Your task to perform on an android device: uninstall "Chime – Mobile Banking" Image 0: 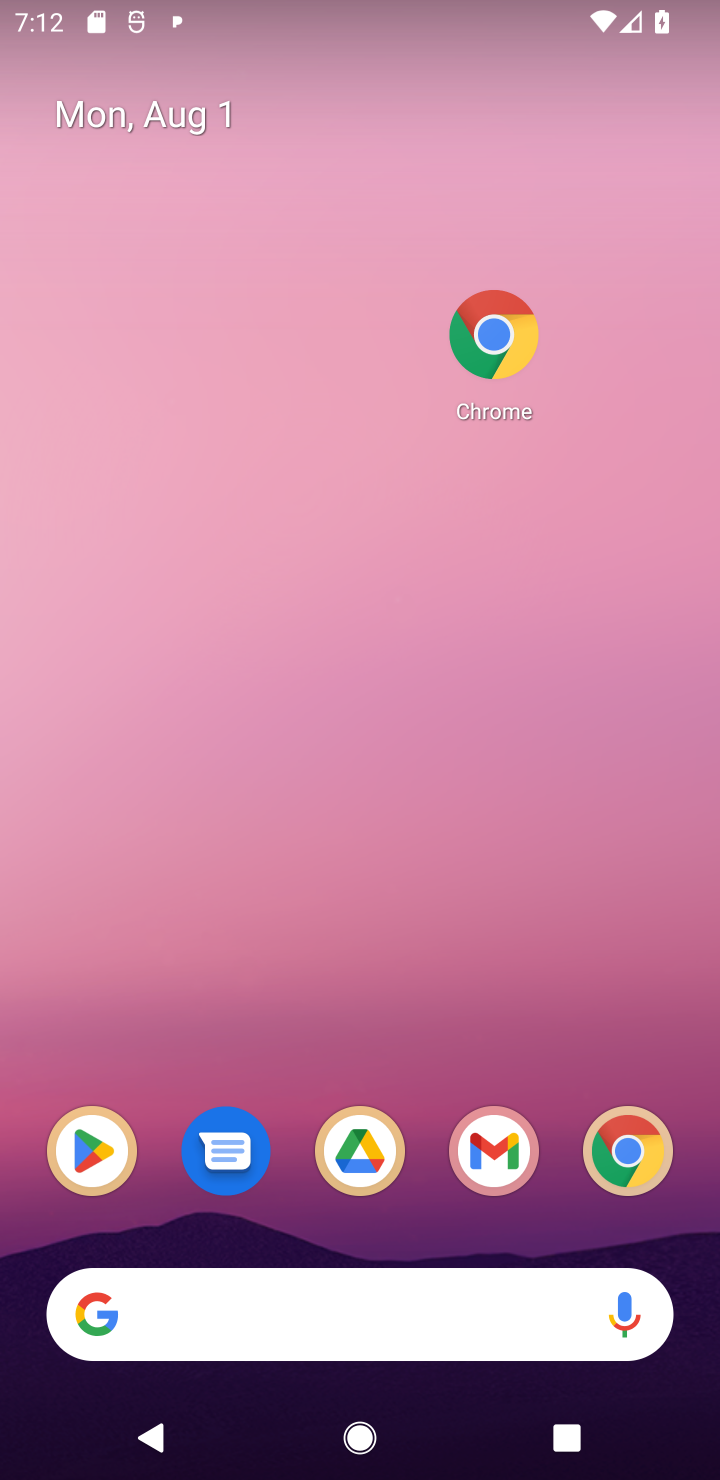
Step 0: click (83, 1146)
Your task to perform on an android device: uninstall "Chime – Mobile Banking" Image 1: 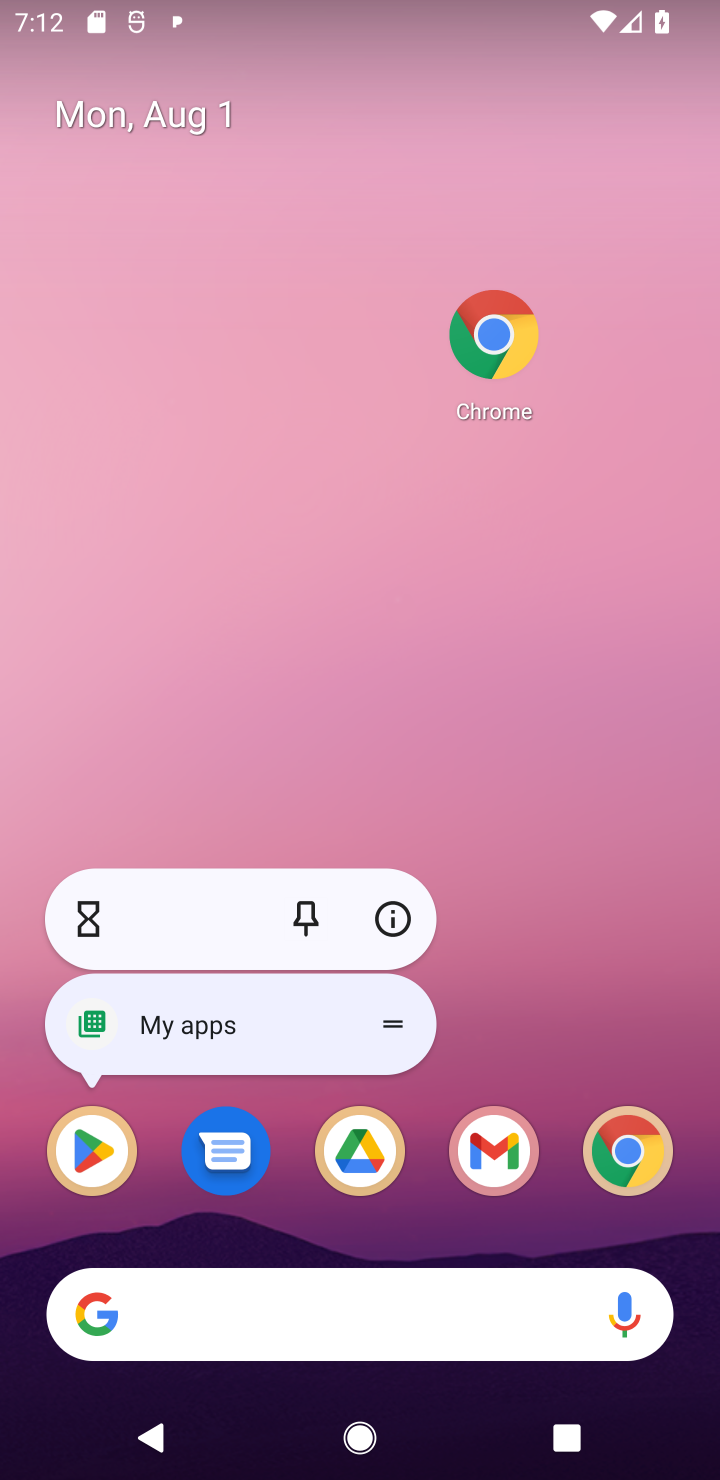
Step 1: click (85, 1151)
Your task to perform on an android device: uninstall "Chime – Mobile Banking" Image 2: 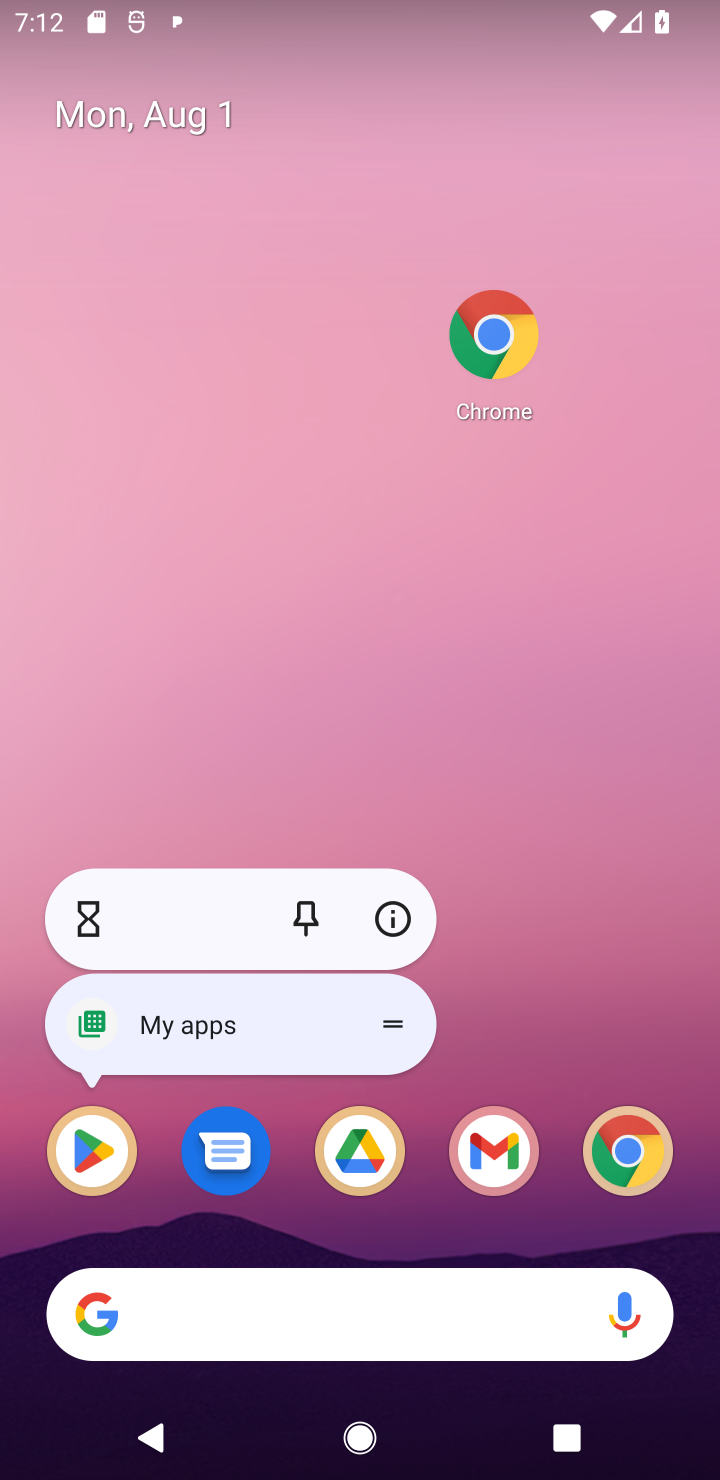
Step 2: click (94, 1168)
Your task to perform on an android device: uninstall "Chime – Mobile Banking" Image 3: 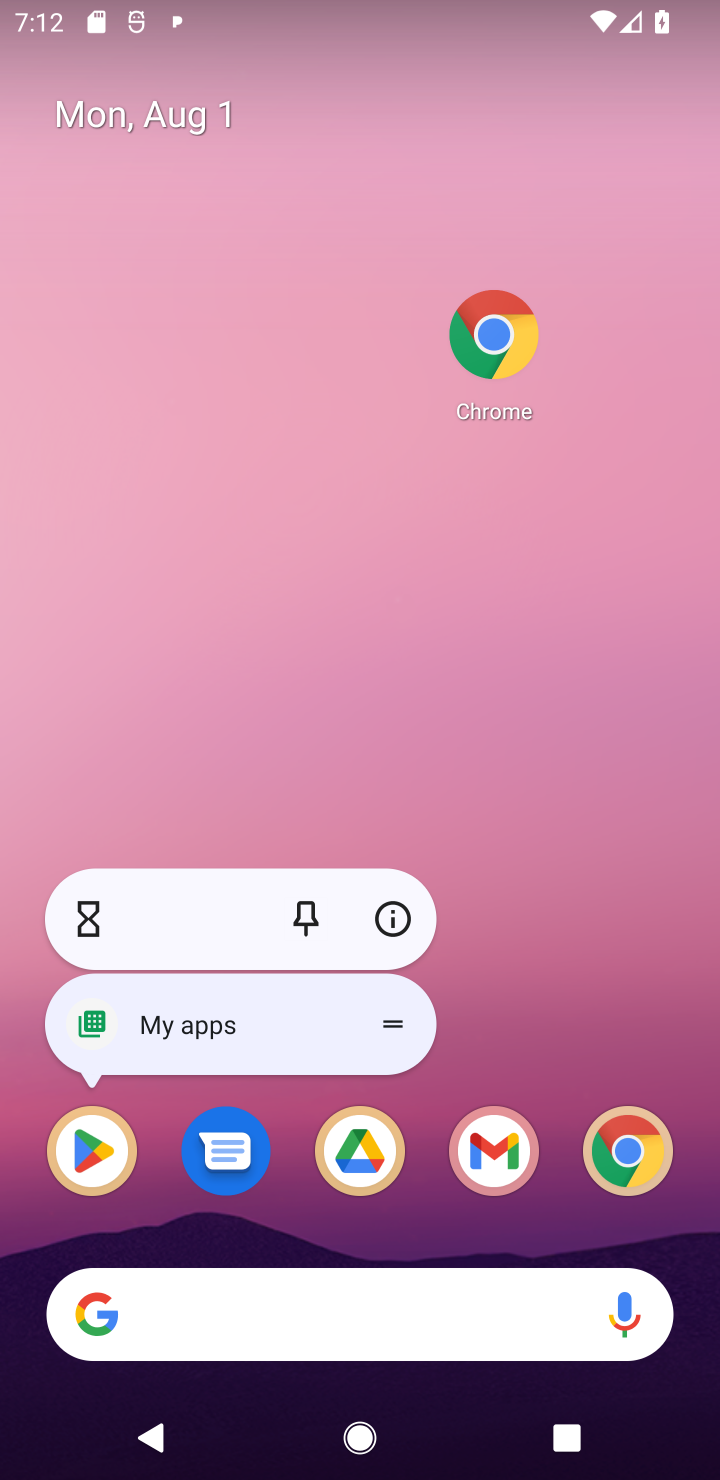
Step 3: click (94, 1168)
Your task to perform on an android device: uninstall "Chime – Mobile Banking" Image 4: 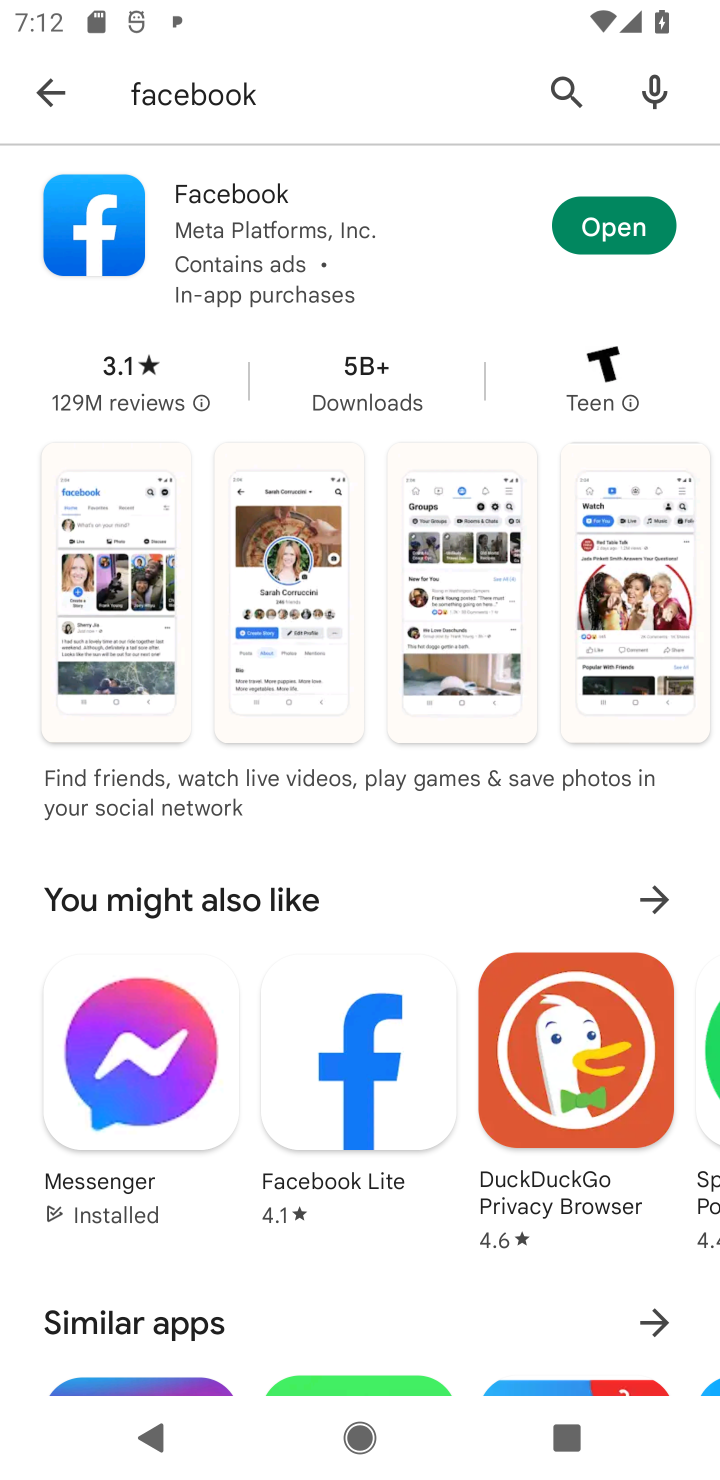
Step 4: click (547, 94)
Your task to perform on an android device: uninstall "Chime – Mobile Banking" Image 5: 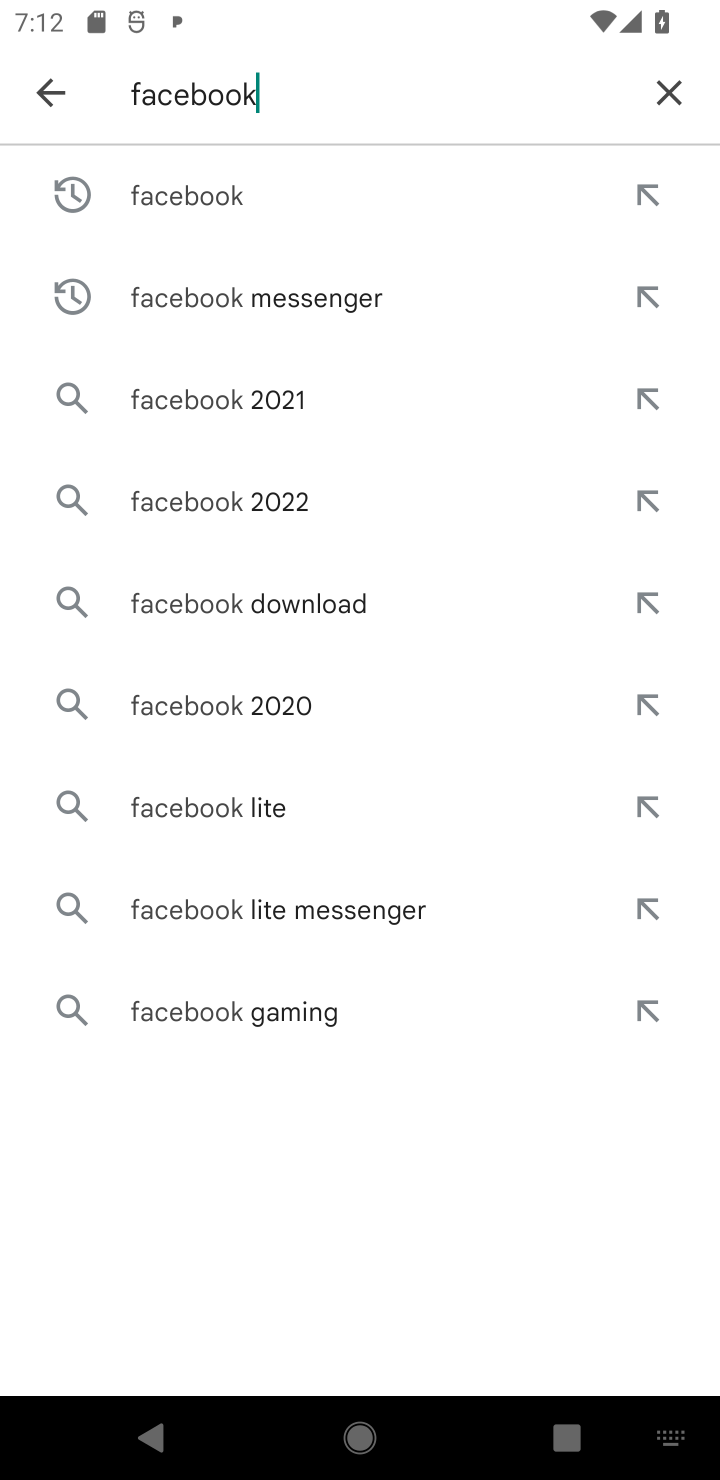
Step 5: click (674, 100)
Your task to perform on an android device: uninstall "Chime – Mobile Banking" Image 6: 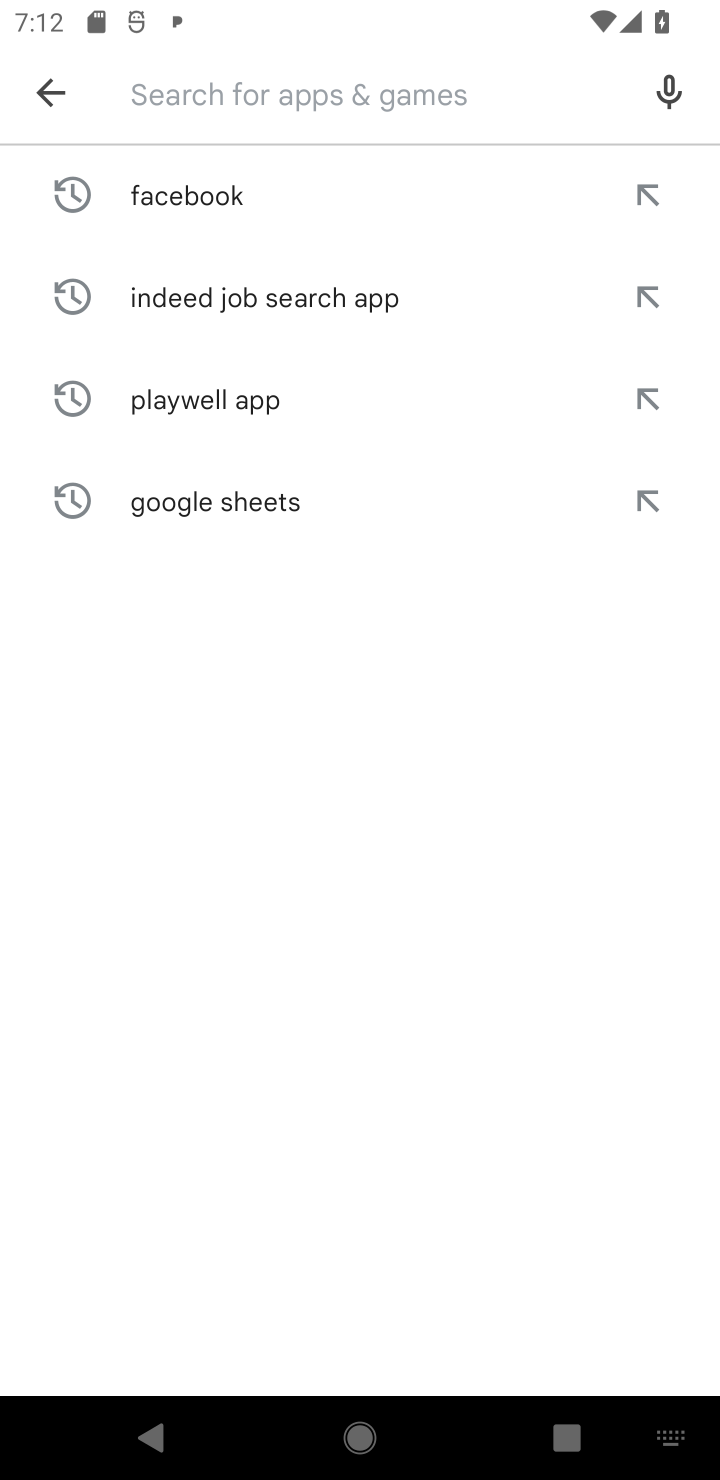
Step 6: type "Chime  Mobile Banking"
Your task to perform on an android device: uninstall "Chime – Mobile Banking" Image 7: 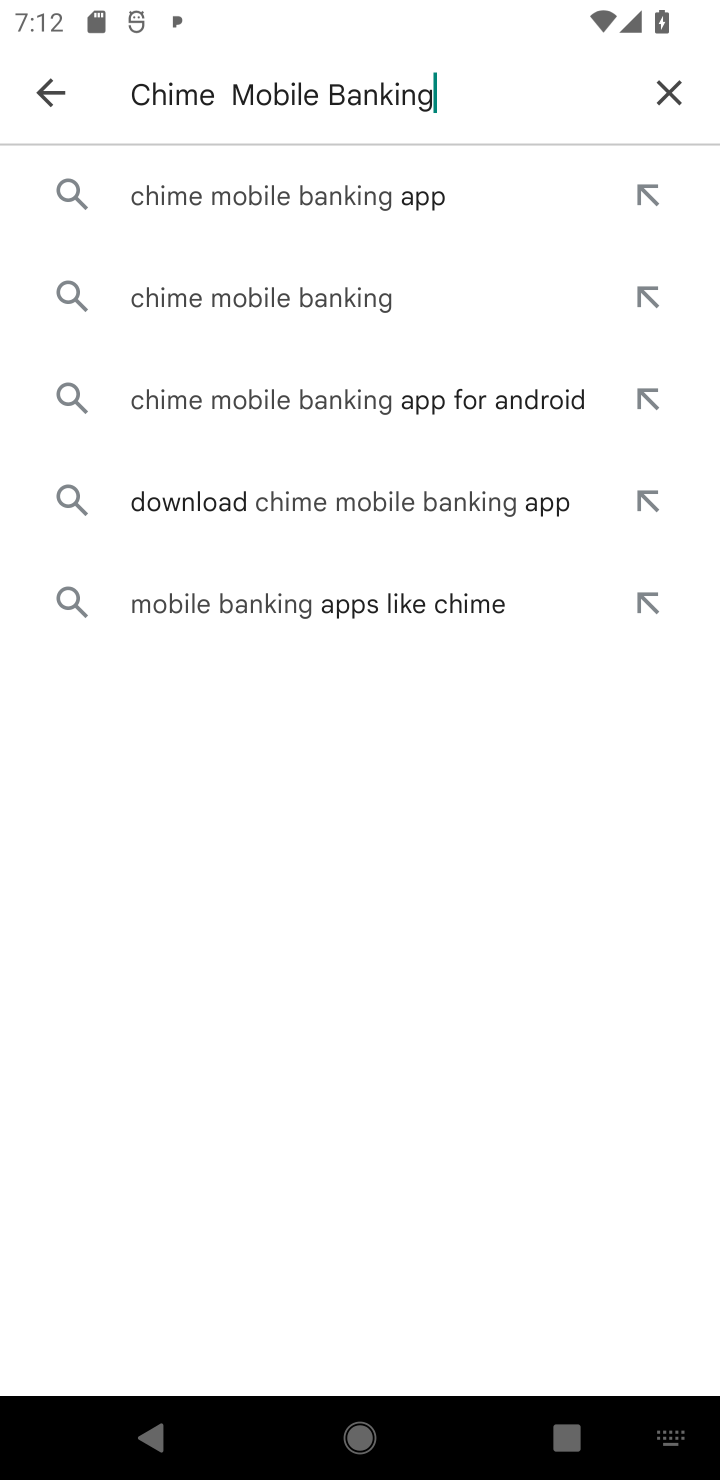
Step 7: click (223, 209)
Your task to perform on an android device: uninstall "Chime – Mobile Banking" Image 8: 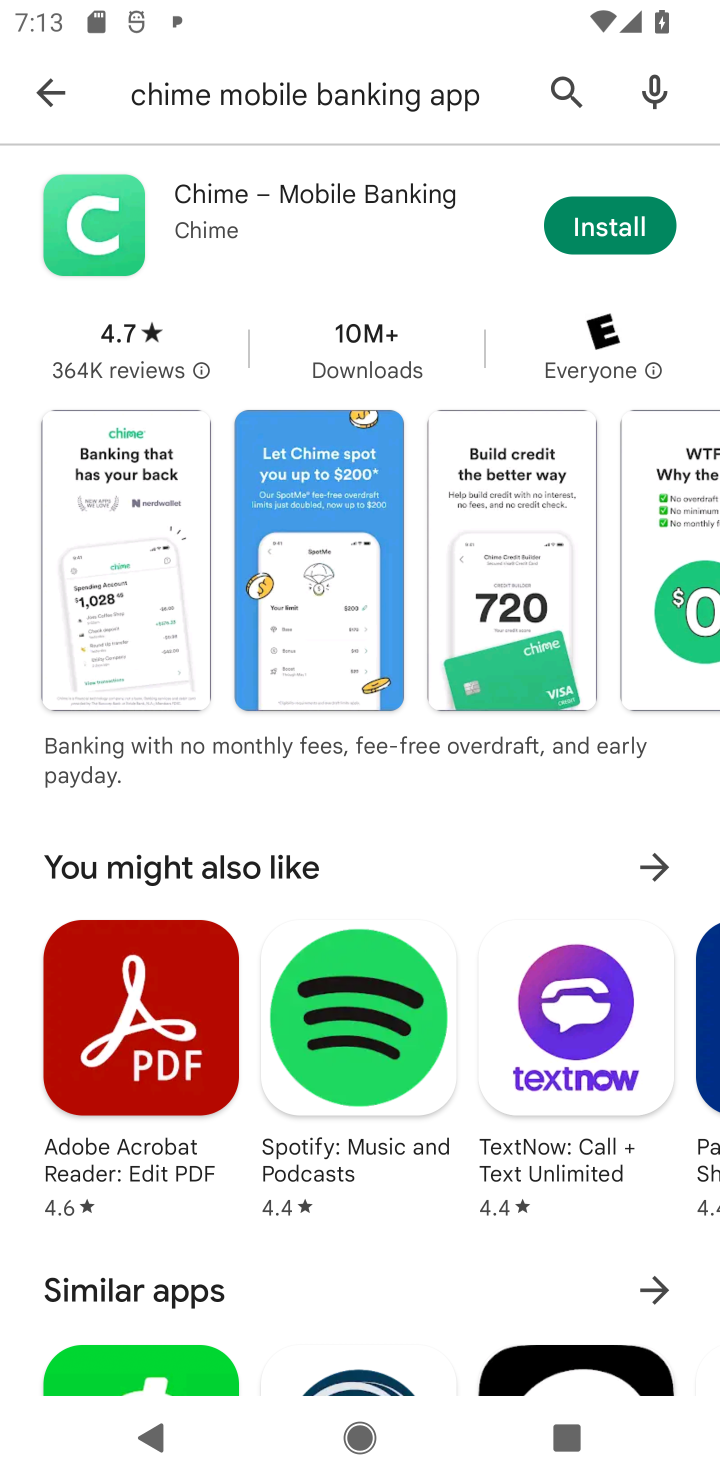
Step 8: task complete